Your task to perform on an android device: Open Maps and search for coffee Image 0: 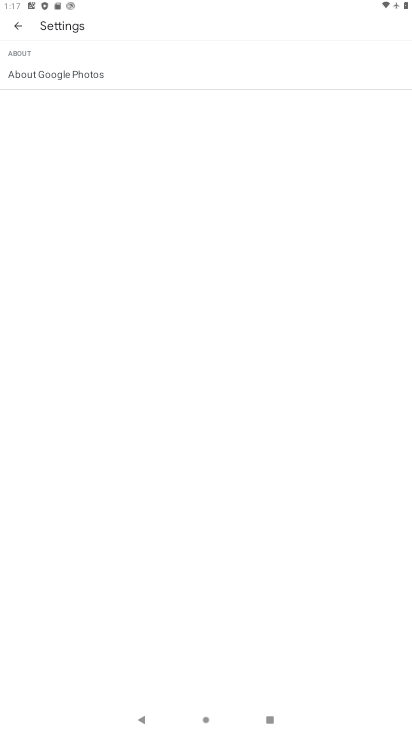
Step 0: press home button
Your task to perform on an android device: Open Maps and search for coffee Image 1: 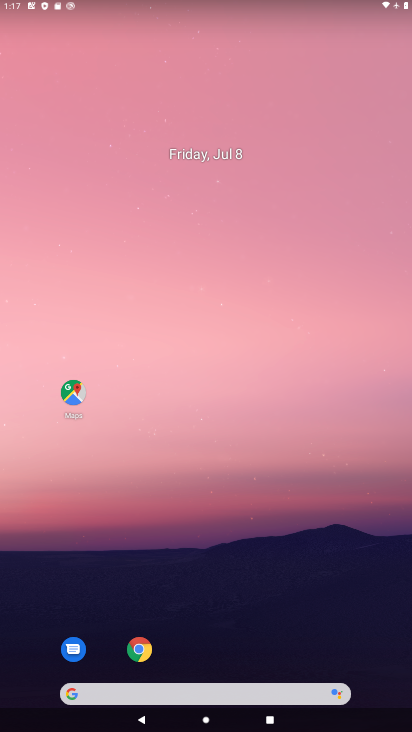
Step 1: click (67, 396)
Your task to perform on an android device: Open Maps and search for coffee Image 2: 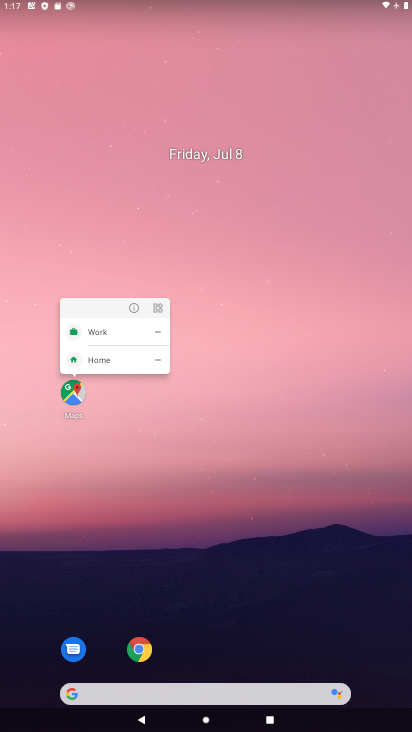
Step 2: click (67, 396)
Your task to perform on an android device: Open Maps and search for coffee Image 3: 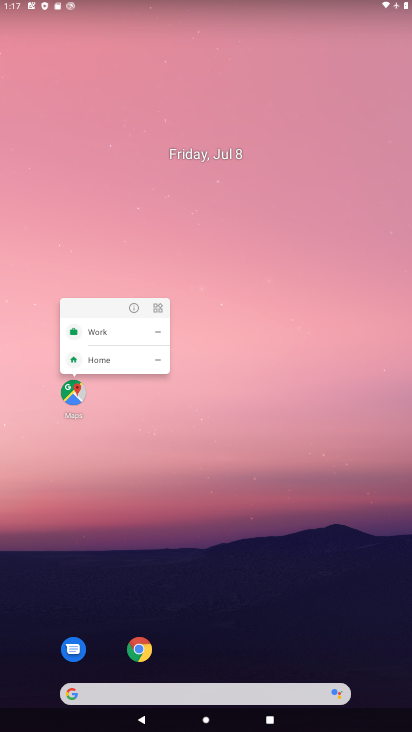
Step 3: click (64, 394)
Your task to perform on an android device: Open Maps and search for coffee Image 4: 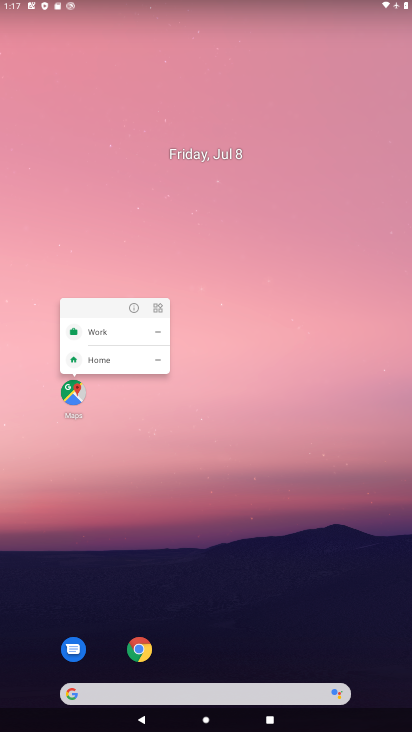
Step 4: click (75, 399)
Your task to perform on an android device: Open Maps and search for coffee Image 5: 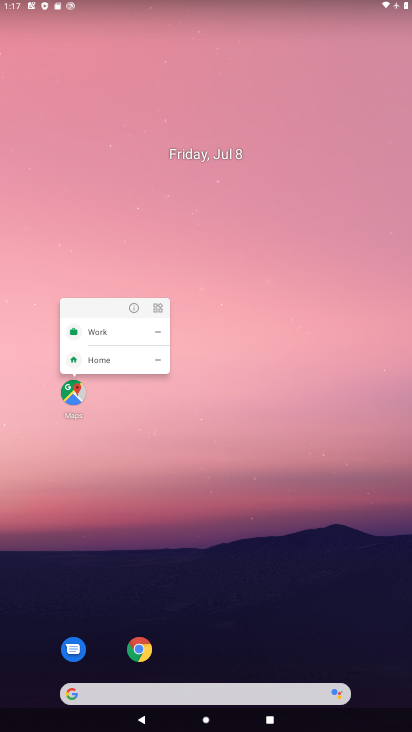
Step 5: click (63, 381)
Your task to perform on an android device: Open Maps and search for coffee Image 6: 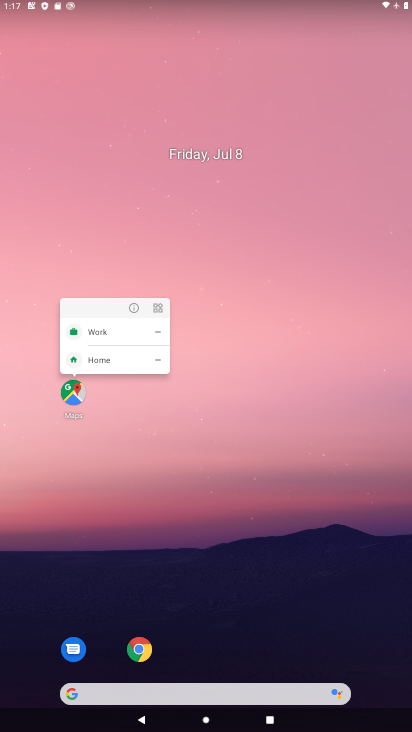
Step 6: click (67, 394)
Your task to perform on an android device: Open Maps and search for coffee Image 7: 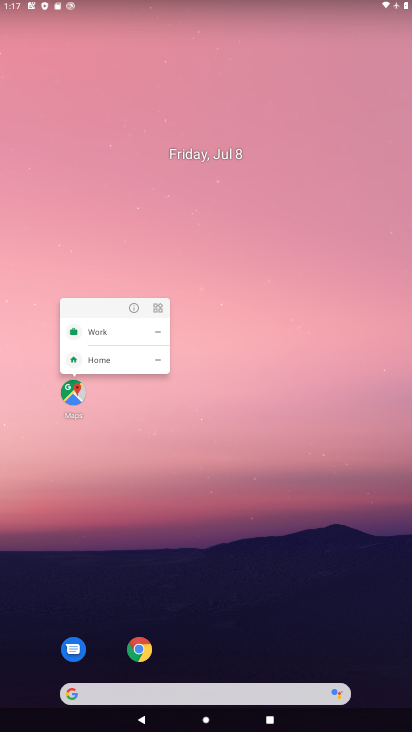
Step 7: task complete